Your task to perform on an android device: turn off airplane mode Image 0: 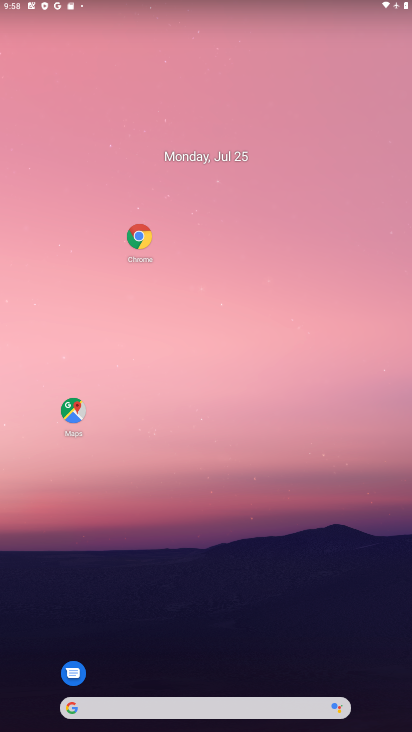
Step 0: drag from (247, 667) to (231, 182)
Your task to perform on an android device: turn off airplane mode Image 1: 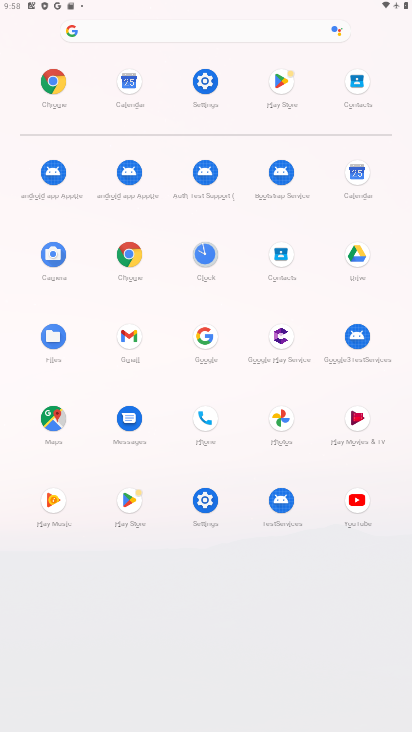
Step 1: click (221, 102)
Your task to perform on an android device: turn off airplane mode Image 2: 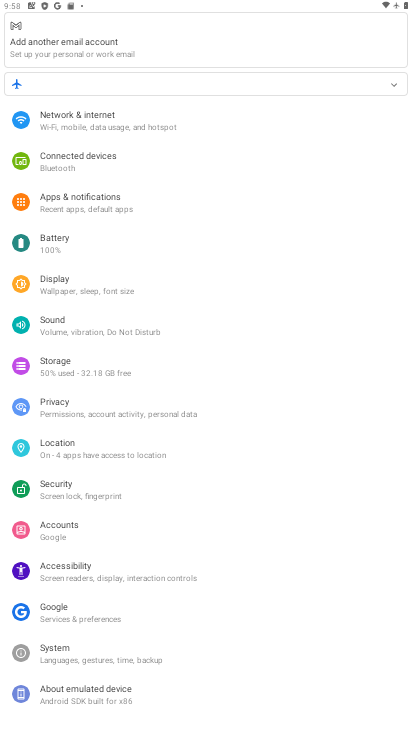
Step 2: click (217, 137)
Your task to perform on an android device: turn off airplane mode Image 3: 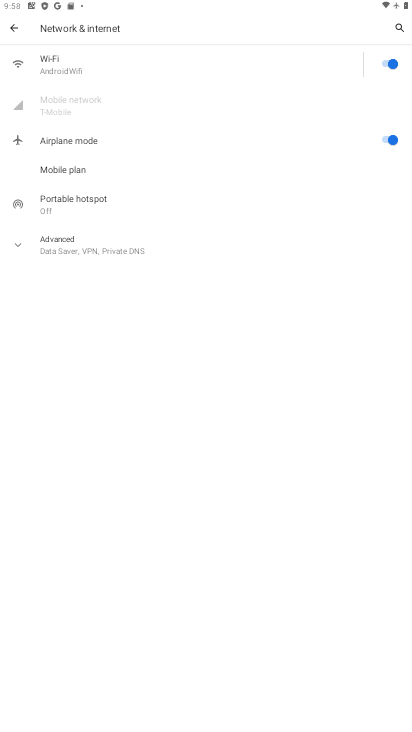
Step 3: task complete